Your task to perform on an android device: turn pop-ups off in chrome Image 0: 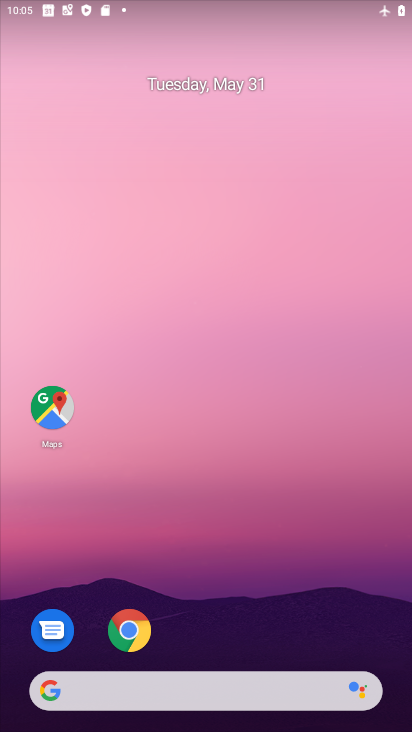
Step 0: drag from (274, 629) to (273, 196)
Your task to perform on an android device: turn pop-ups off in chrome Image 1: 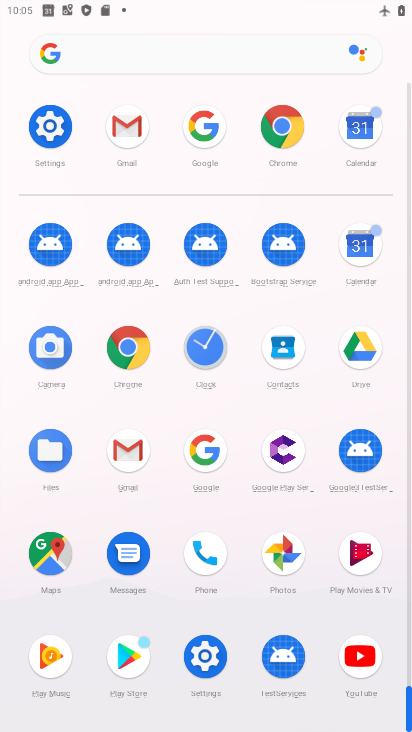
Step 1: click (119, 342)
Your task to perform on an android device: turn pop-ups off in chrome Image 2: 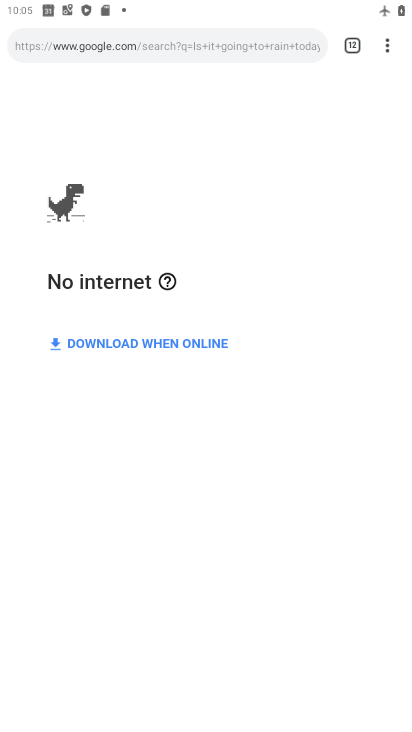
Step 2: click (388, 39)
Your task to perform on an android device: turn pop-ups off in chrome Image 3: 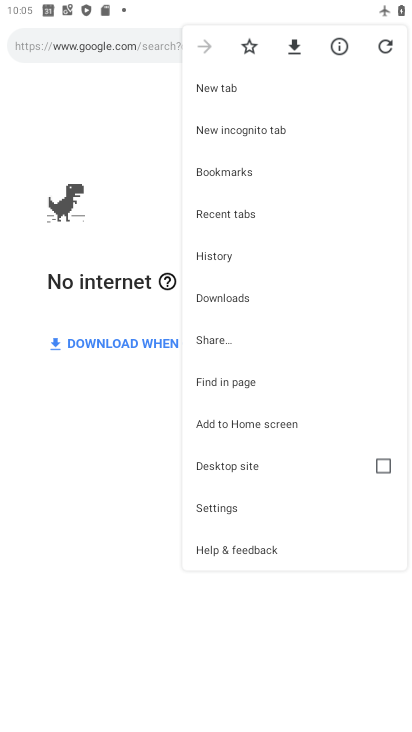
Step 3: drag from (263, 444) to (279, 212)
Your task to perform on an android device: turn pop-ups off in chrome Image 4: 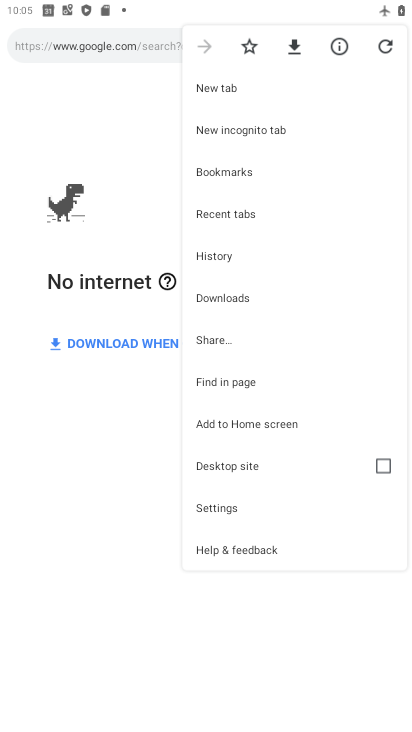
Step 4: click (227, 504)
Your task to perform on an android device: turn pop-ups off in chrome Image 5: 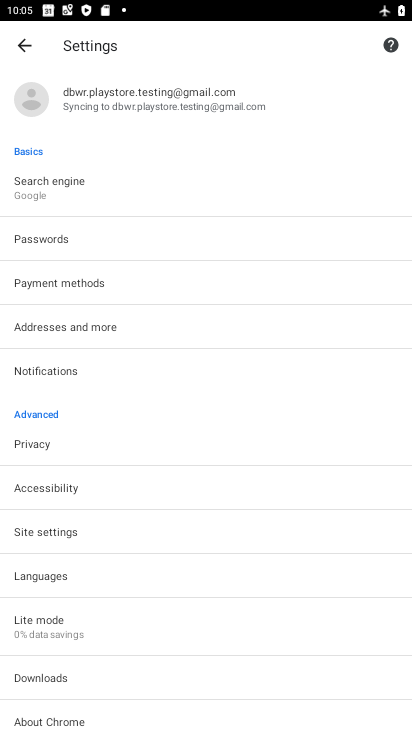
Step 5: drag from (133, 613) to (141, 408)
Your task to perform on an android device: turn pop-ups off in chrome Image 6: 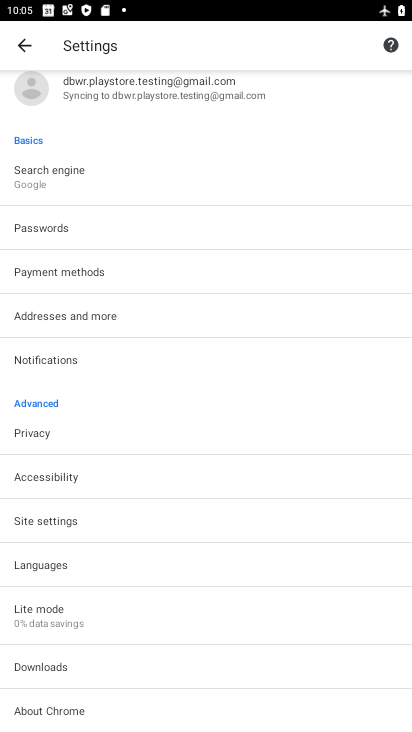
Step 6: drag from (83, 651) to (126, 406)
Your task to perform on an android device: turn pop-ups off in chrome Image 7: 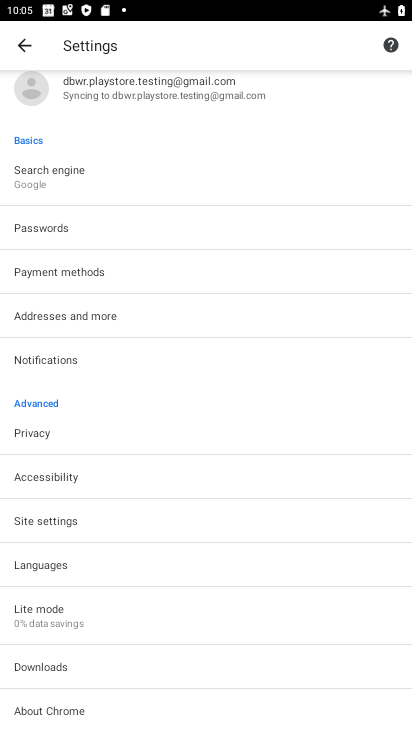
Step 7: click (74, 515)
Your task to perform on an android device: turn pop-ups off in chrome Image 8: 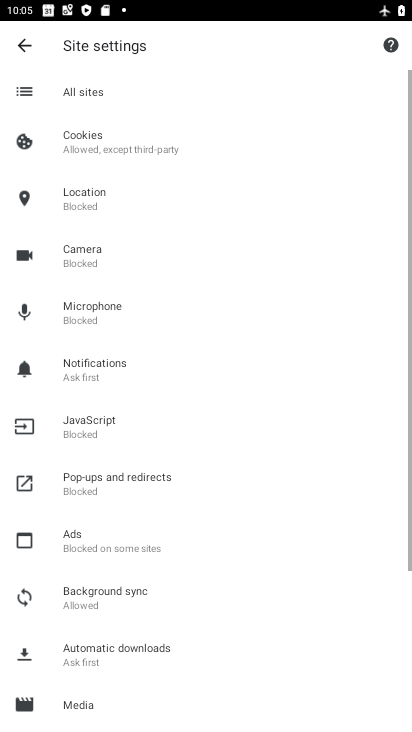
Step 8: click (148, 472)
Your task to perform on an android device: turn pop-ups off in chrome Image 9: 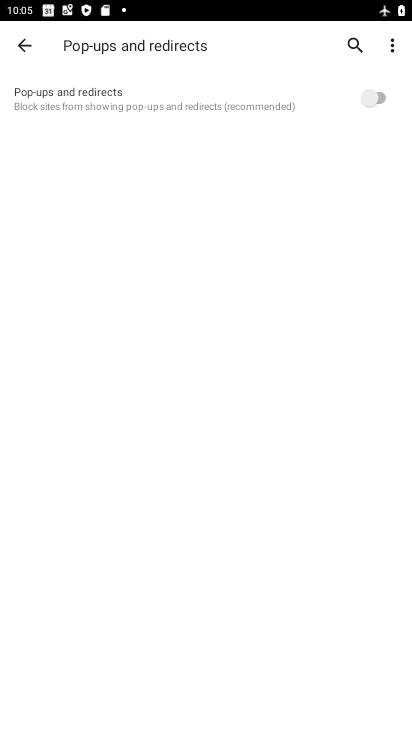
Step 9: click (371, 97)
Your task to perform on an android device: turn pop-ups off in chrome Image 10: 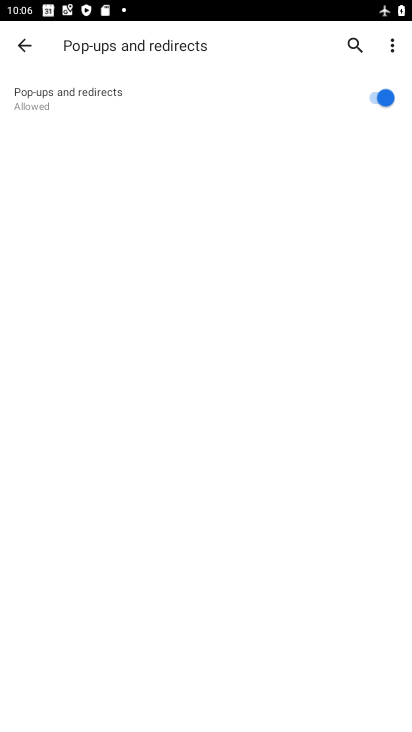
Step 10: task complete